Your task to perform on an android device: toggle wifi Image 0: 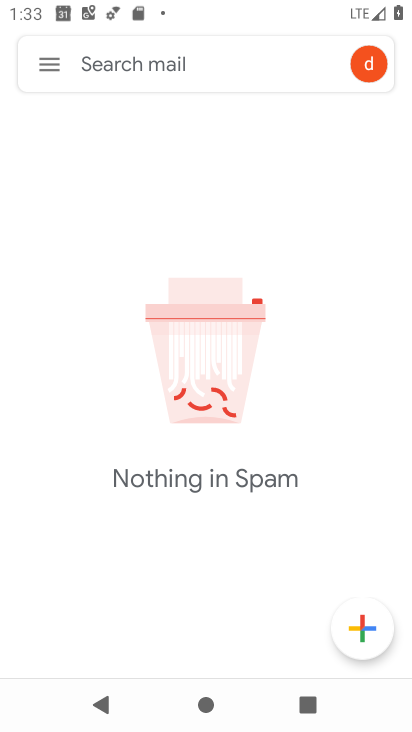
Step 0: press home button
Your task to perform on an android device: toggle wifi Image 1: 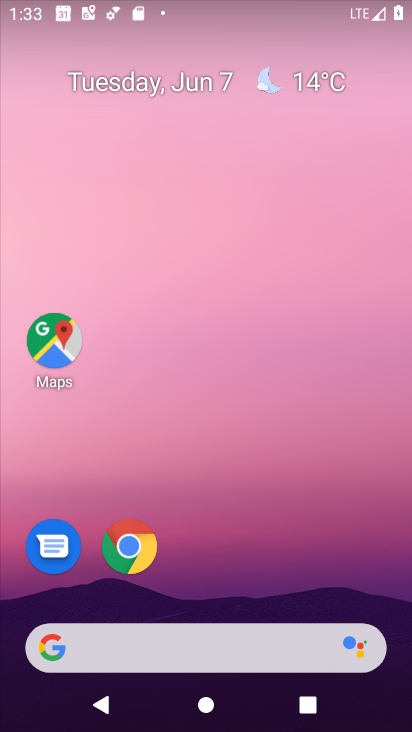
Step 1: drag from (245, 4) to (256, 461)
Your task to perform on an android device: toggle wifi Image 2: 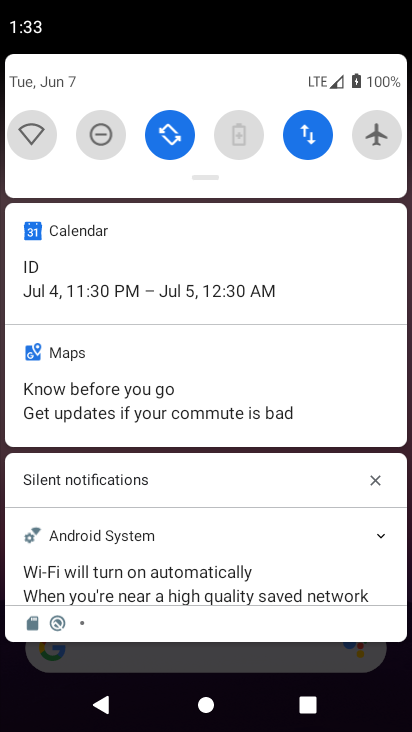
Step 2: click (40, 137)
Your task to perform on an android device: toggle wifi Image 3: 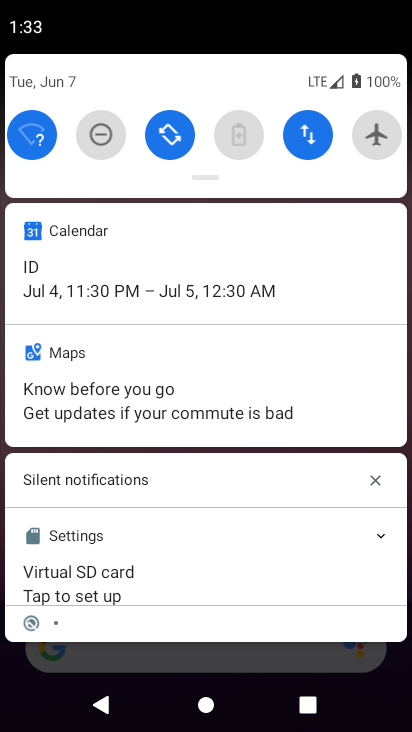
Step 3: task complete